Your task to perform on an android device: delete the emails in spam in the gmail app Image 0: 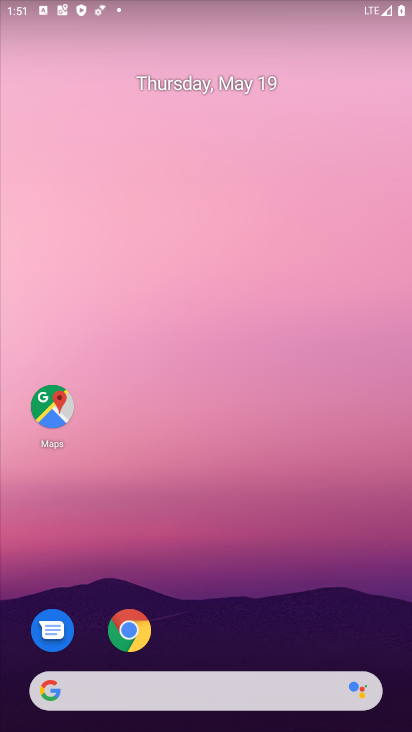
Step 0: drag from (394, 638) to (337, 82)
Your task to perform on an android device: delete the emails in spam in the gmail app Image 1: 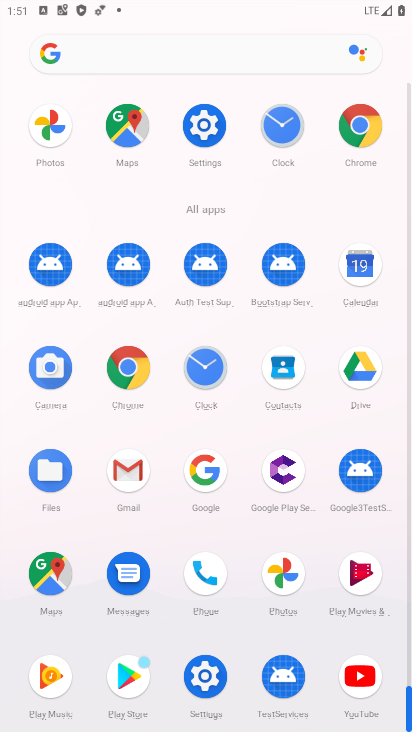
Step 1: click (125, 471)
Your task to perform on an android device: delete the emails in spam in the gmail app Image 2: 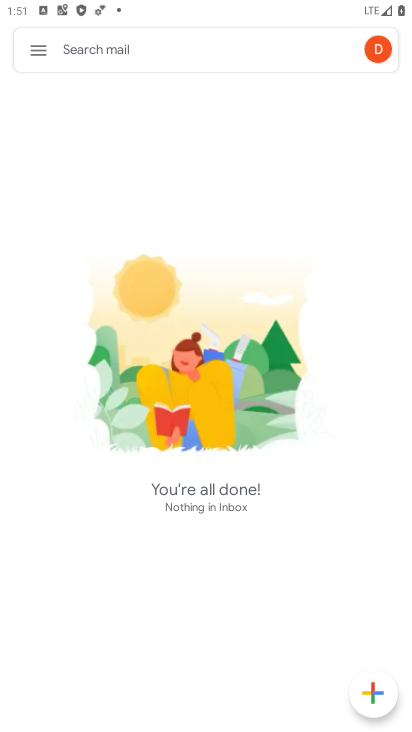
Step 2: click (38, 49)
Your task to perform on an android device: delete the emails in spam in the gmail app Image 3: 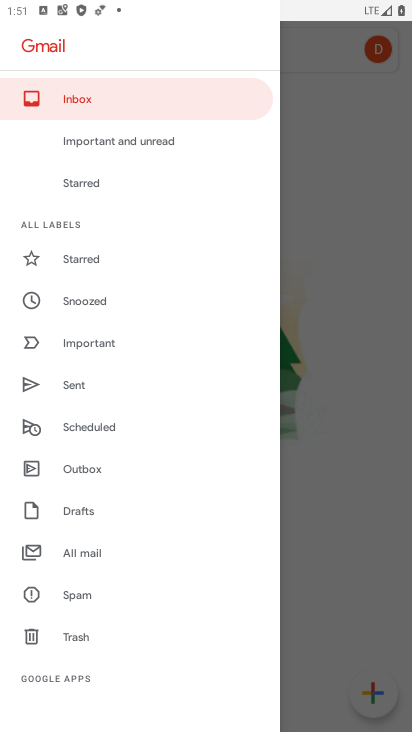
Step 3: click (70, 594)
Your task to perform on an android device: delete the emails in spam in the gmail app Image 4: 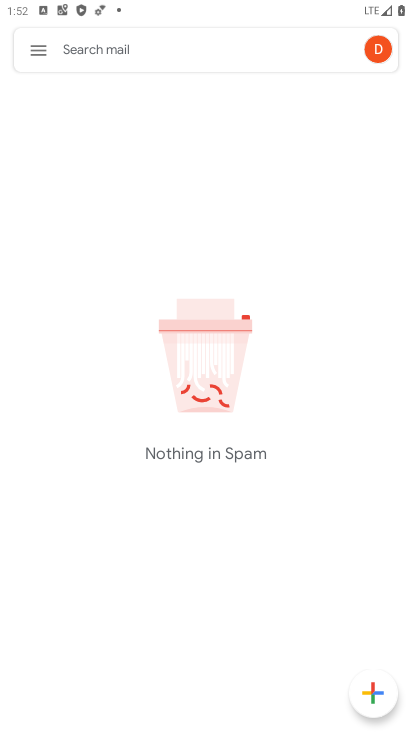
Step 4: task complete